Your task to perform on an android device: set an alarm Image 0: 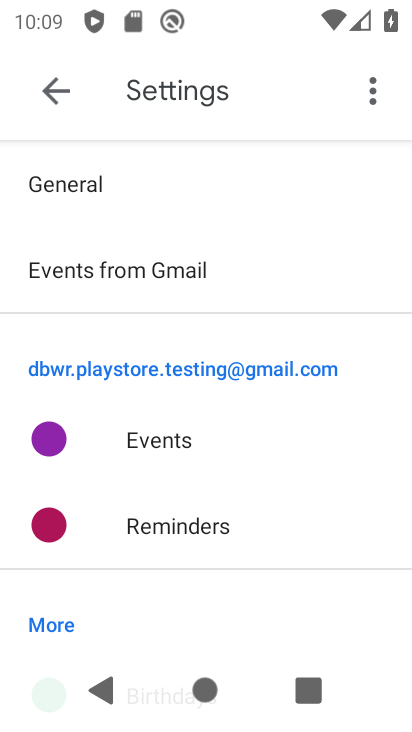
Step 0: press home button
Your task to perform on an android device: set an alarm Image 1: 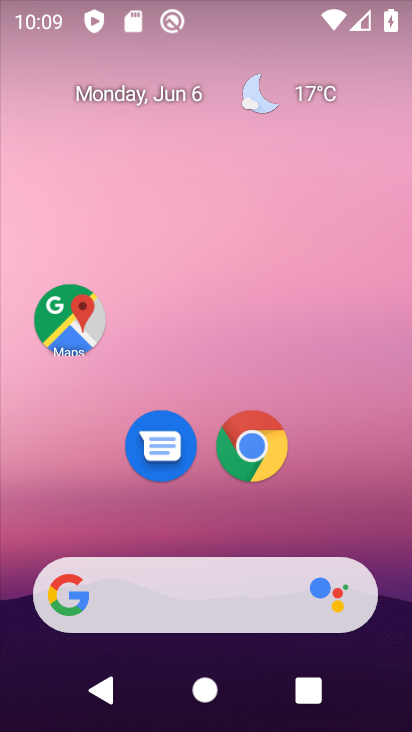
Step 1: drag from (236, 517) to (319, 98)
Your task to perform on an android device: set an alarm Image 2: 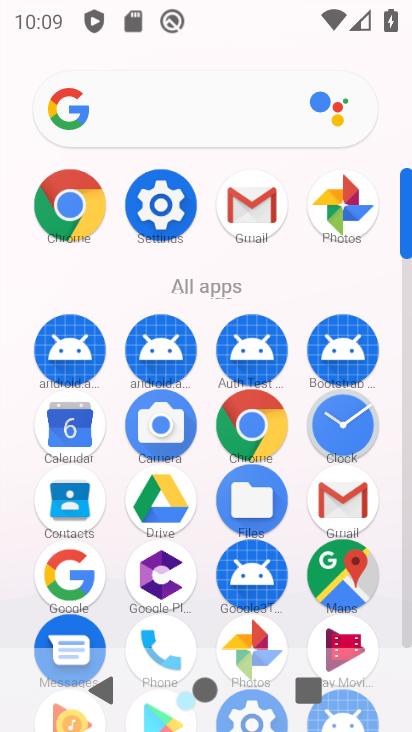
Step 2: click (341, 438)
Your task to perform on an android device: set an alarm Image 3: 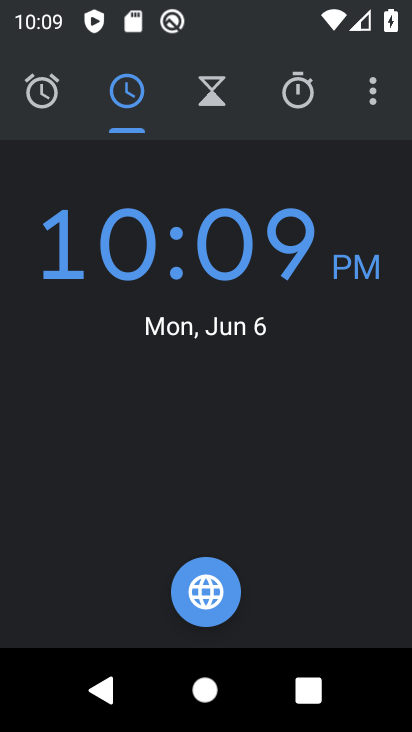
Step 3: click (43, 84)
Your task to perform on an android device: set an alarm Image 4: 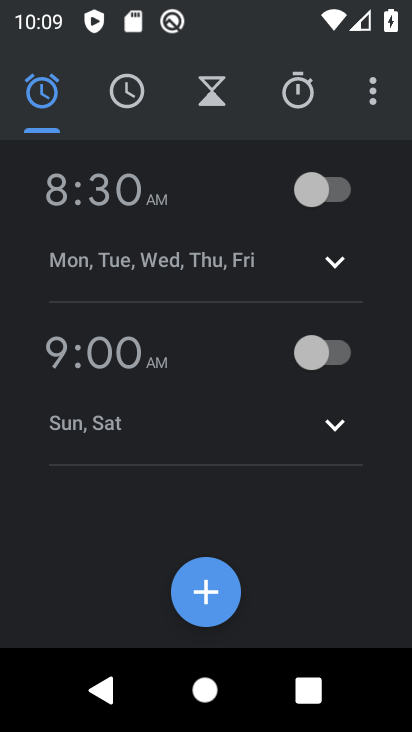
Step 4: click (330, 186)
Your task to perform on an android device: set an alarm Image 5: 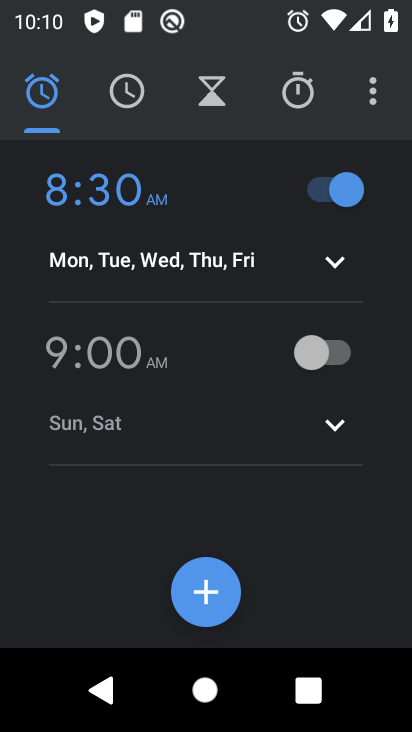
Step 5: task complete